Your task to perform on an android device: open wifi settings Image 0: 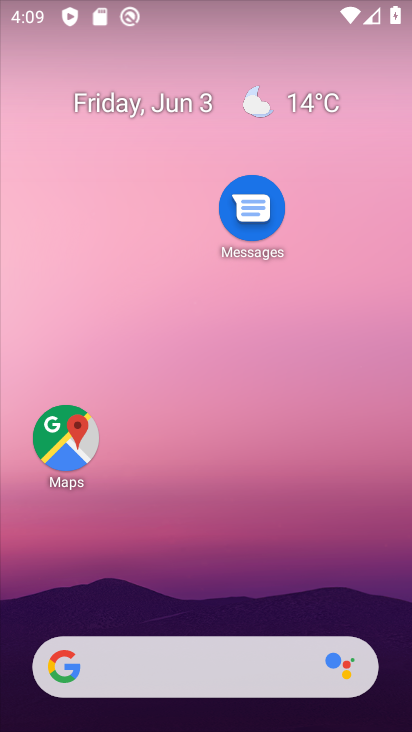
Step 0: drag from (221, 591) to (267, 14)
Your task to perform on an android device: open wifi settings Image 1: 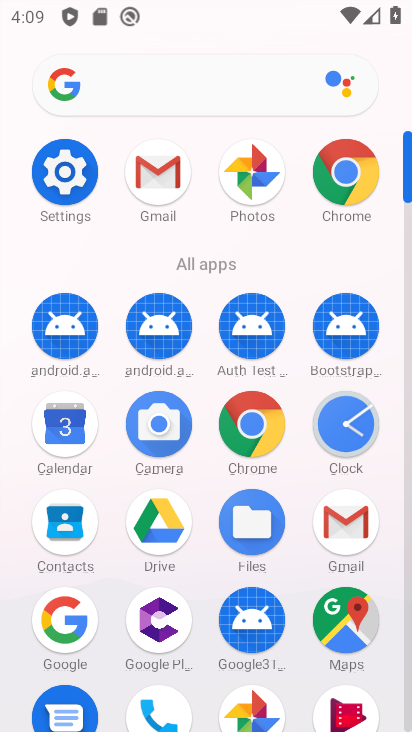
Step 1: click (60, 177)
Your task to perform on an android device: open wifi settings Image 2: 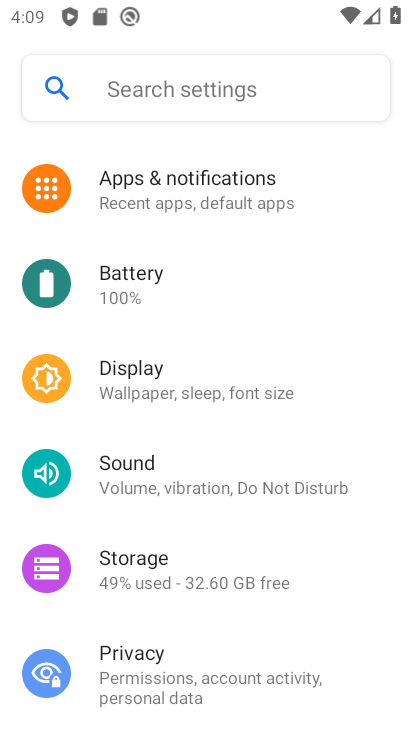
Step 2: drag from (147, 569) to (210, 161)
Your task to perform on an android device: open wifi settings Image 3: 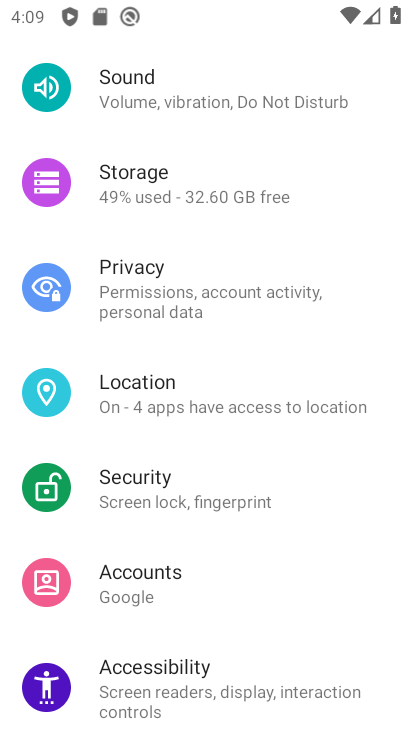
Step 3: drag from (188, 197) to (152, 517)
Your task to perform on an android device: open wifi settings Image 4: 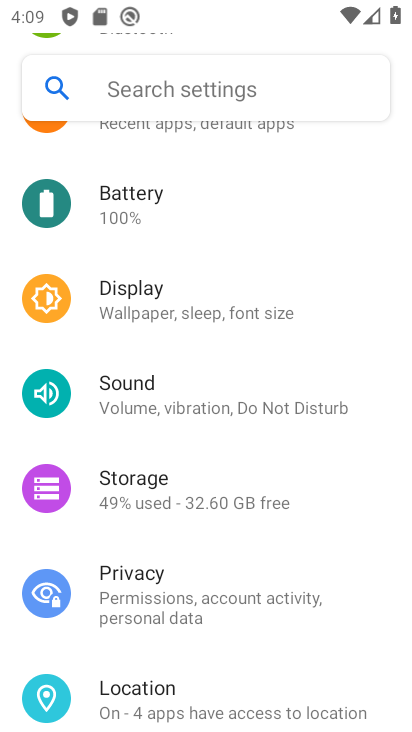
Step 4: drag from (203, 257) to (203, 537)
Your task to perform on an android device: open wifi settings Image 5: 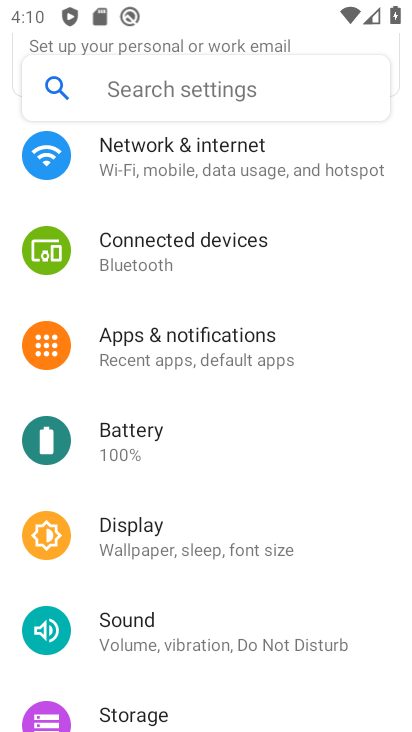
Step 5: drag from (215, 285) to (213, 496)
Your task to perform on an android device: open wifi settings Image 6: 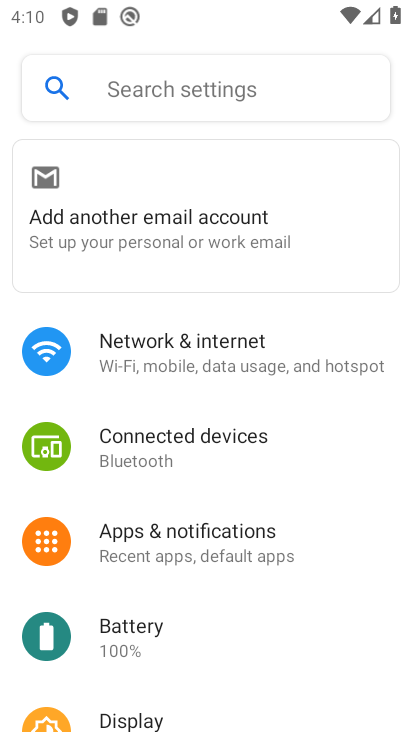
Step 6: click (165, 207)
Your task to perform on an android device: open wifi settings Image 7: 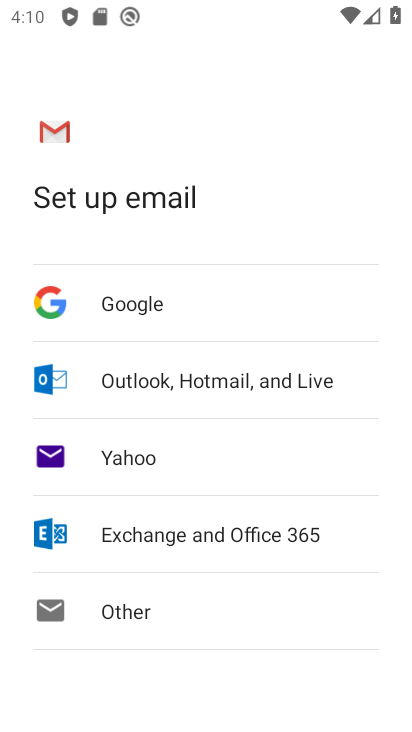
Step 7: press back button
Your task to perform on an android device: open wifi settings Image 8: 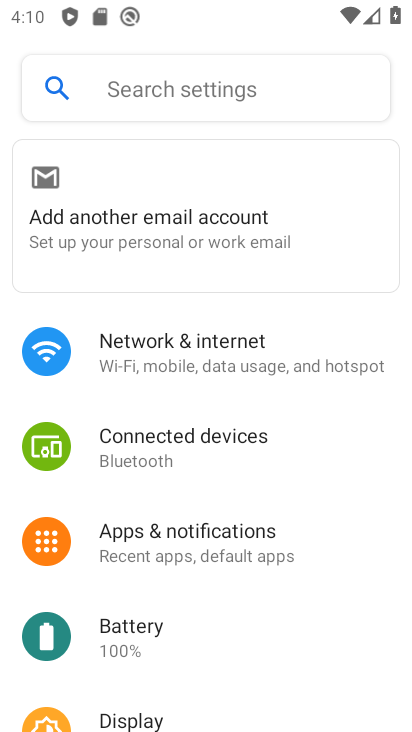
Step 8: click (194, 369)
Your task to perform on an android device: open wifi settings Image 9: 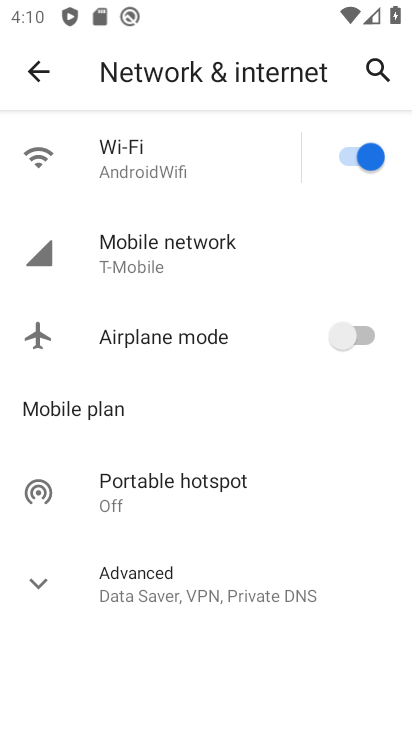
Step 9: click (142, 156)
Your task to perform on an android device: open wifi settings Image 10: 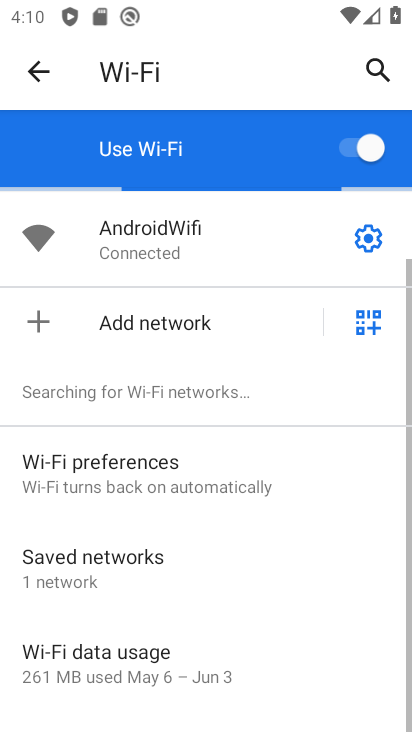
Step 10: task complete